Your task to perform on an android device: check out phone information Image 0: 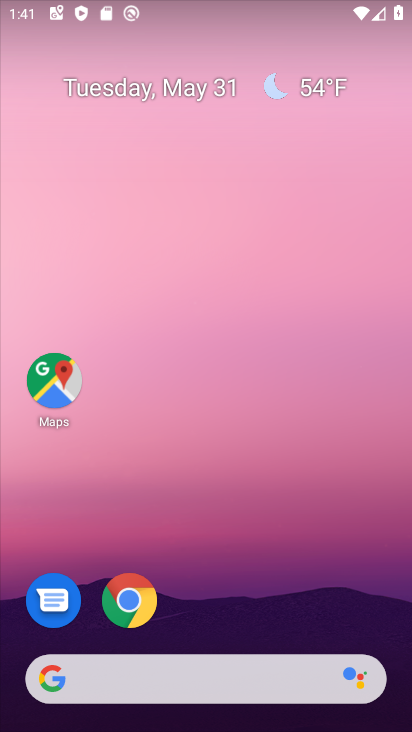
Step 0: drag from (284, 530) to (132, 5)
Your task to perform on an android device: check out phone information Image 1: 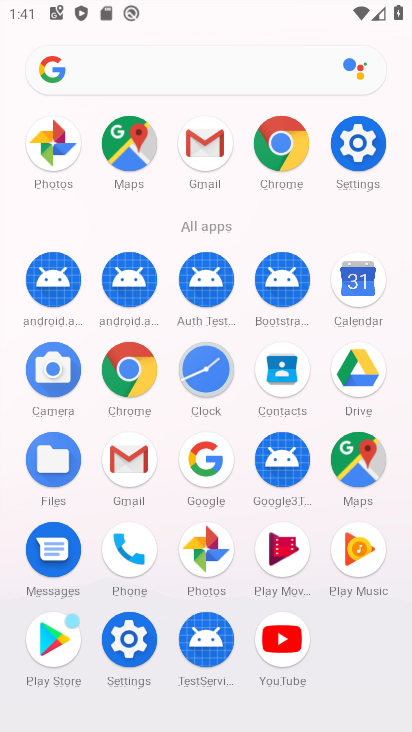
Step 1: click (363, 146)
Your task to perform on an android device: check out phone information Image 2: 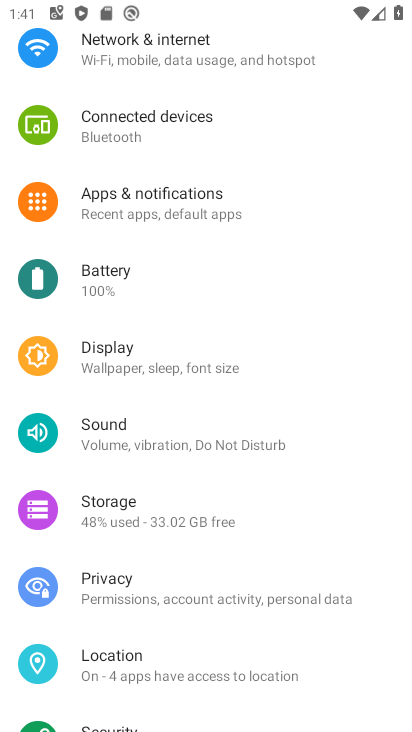
Step 2: drag from (252, 492) to (179, 17)
Your task to perform on an android device: check out phone information Image 3: 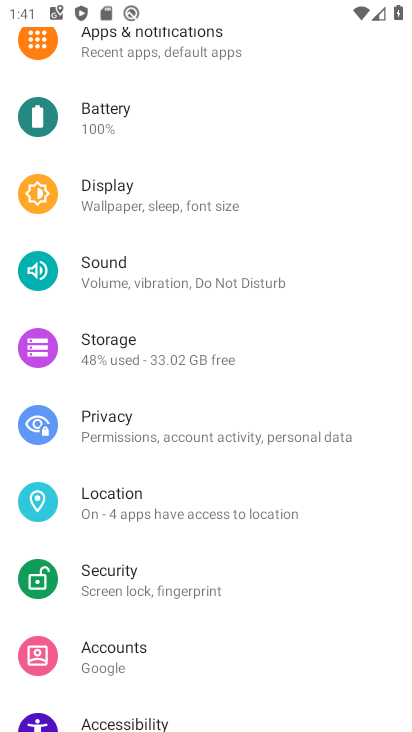
Step 3: drag from (221, 621) to (190, 56)
Your task to perform on an android device: check out phone information Image 4: 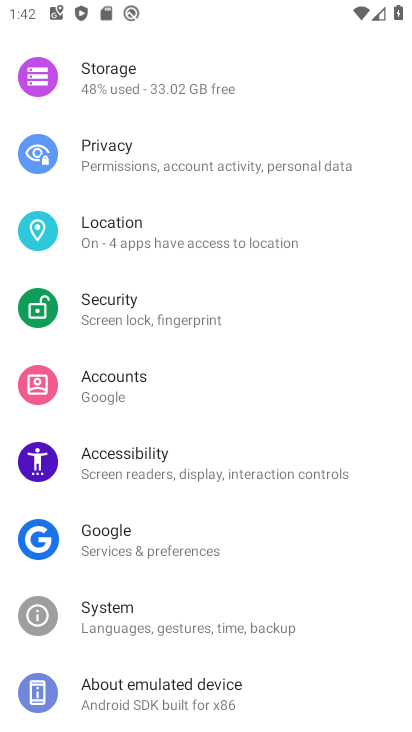
Step 4: click (172, 704)
Your task to perform on an android device: check out phone information Image 5: 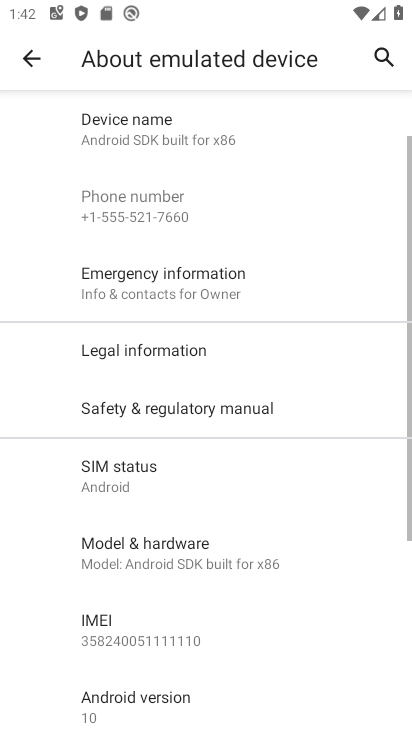
Step 5: task complete